Your task to perform on an android device: Go to internet settings Image 0: 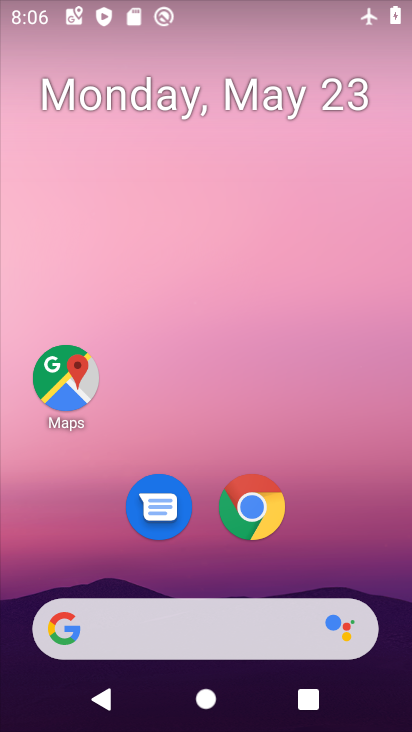
Step 0: press home button
Your task to perform on an android device: Go to internet settings Image 1: 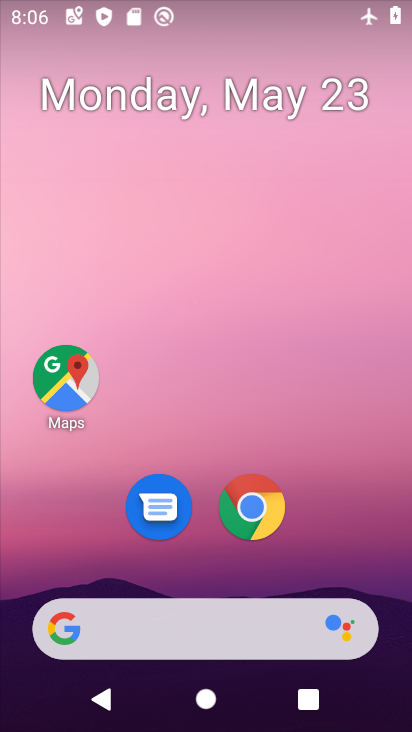
Step 1: drag from (333, 549) to (295, 94)
Your task to perform on an android device: Go to internet settings Image 2: 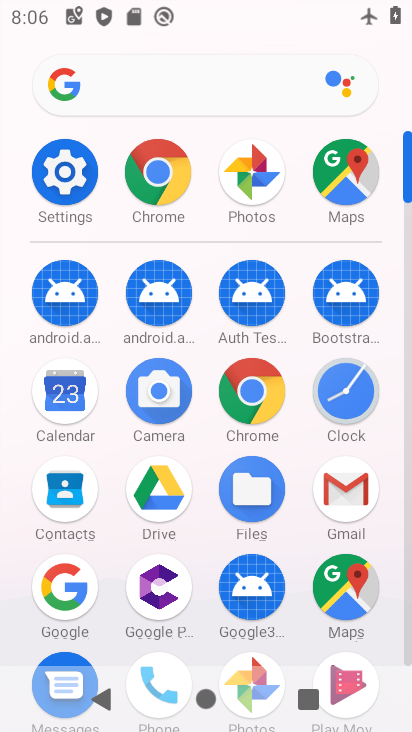
Step 2: click (49, 192)
Your task to perform on an android device: Go to internet settings Image 3: 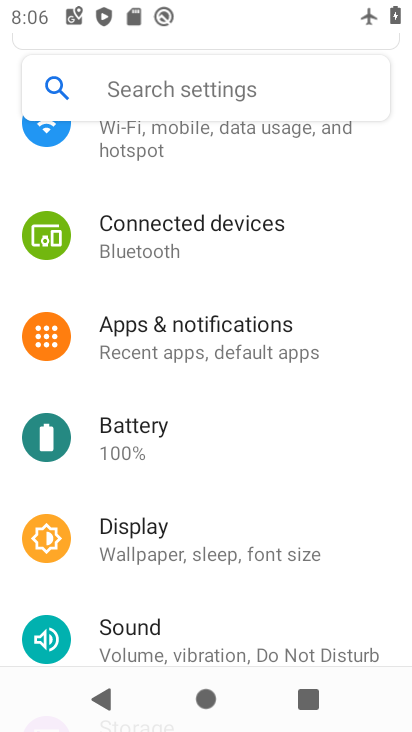
Step 3: drag from (163, 183) to (191, 457)
Your task to perform on an android device: Go to internet settings Image 4: 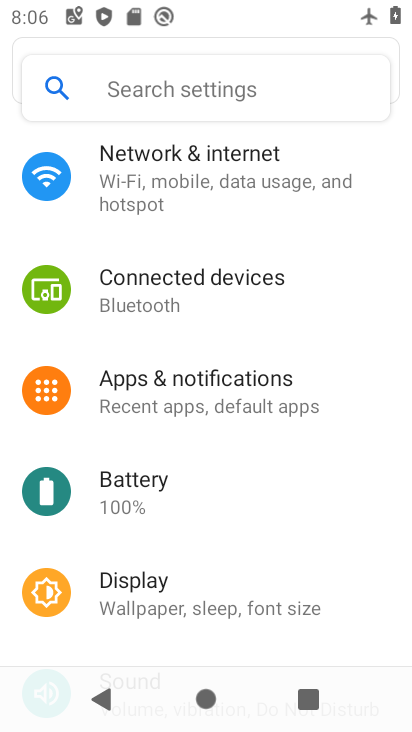
Step 4: click (298, 196)
Your task to perform on an android device: Go to internet settings Image 5: 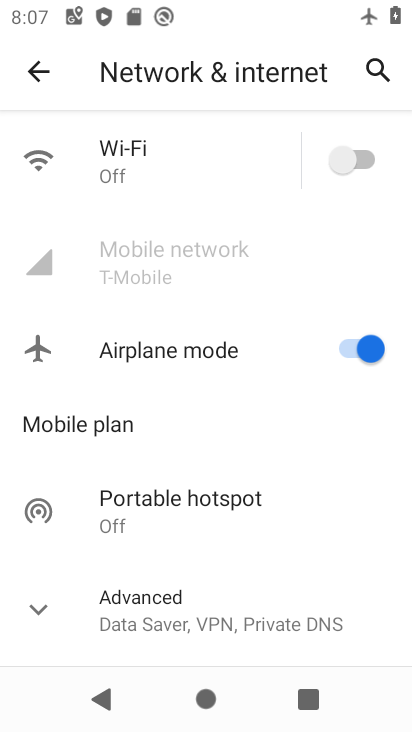
Step 5: task complete